Your task to perform on an android device: What's the weather today? Image 0: 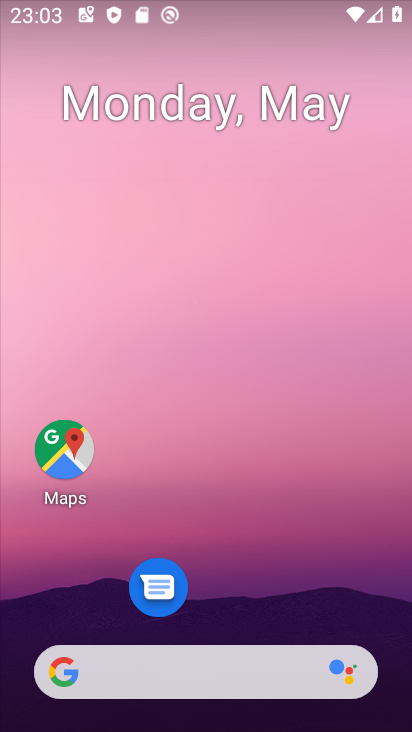
Step 0: click (149, 659)
Your task to perform on an android device: What's the weather today? Image 1: 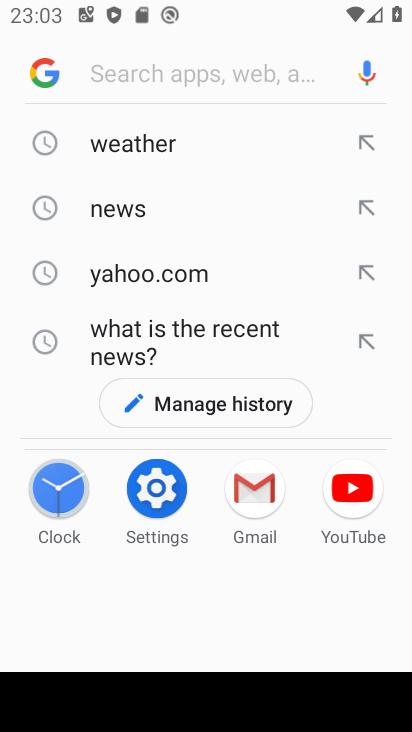
Step 1: click (110, 144)
Your task to perform on an android device: What's the weather today? Image 2: 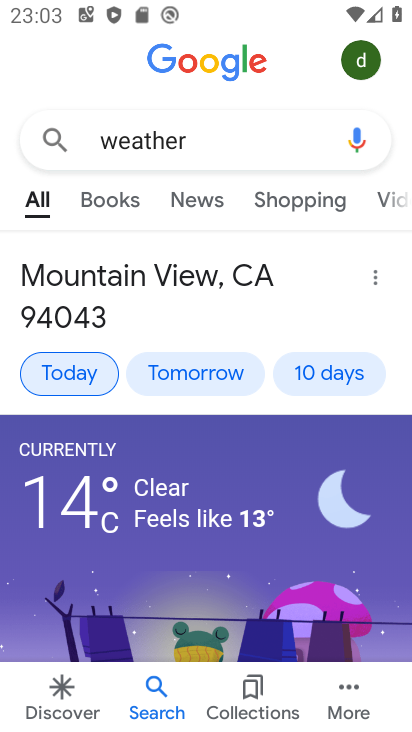
Step 2: click (93, 366)
Your task to perform on an android device: What's the weather today? Image 3: 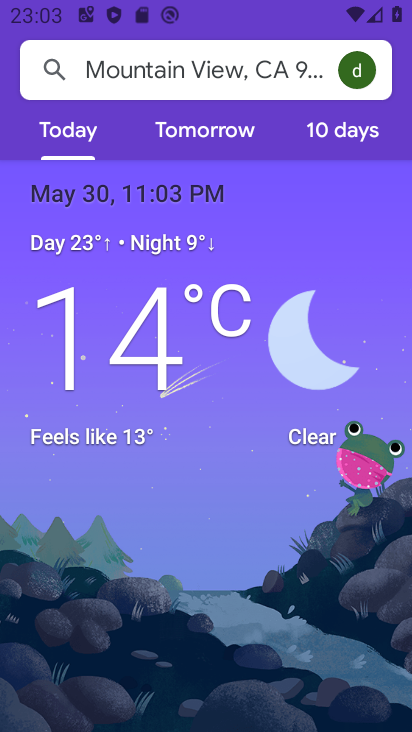
Step 3: task complete